Your task to perform on an android device: What's the weather going to be tomorrow? Image 0: 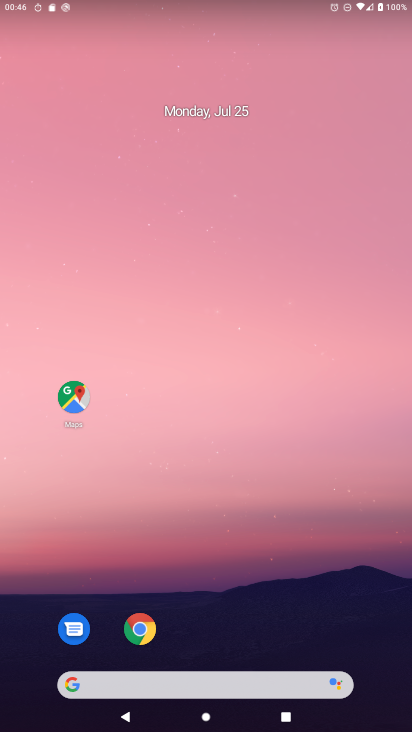
Step 0: drag from (187, 530) to (215, 94)
Your task to perform on an android device: What's the weather going to be tomorrow? Image 1: 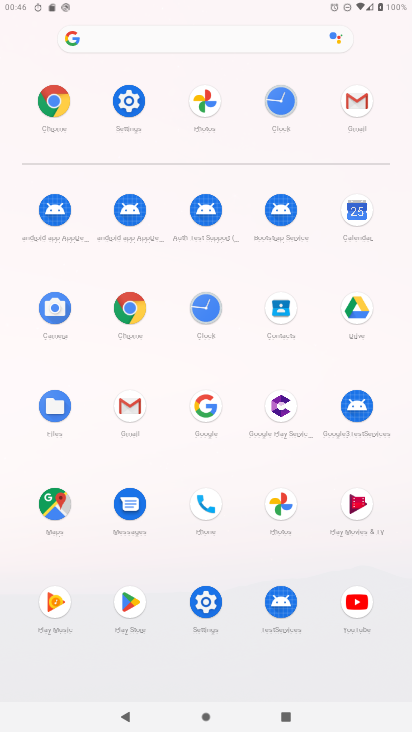
Step 1: click (126, 39)
Your task to perform on an android device: What's the weather going to be tomorrow? Image 2: 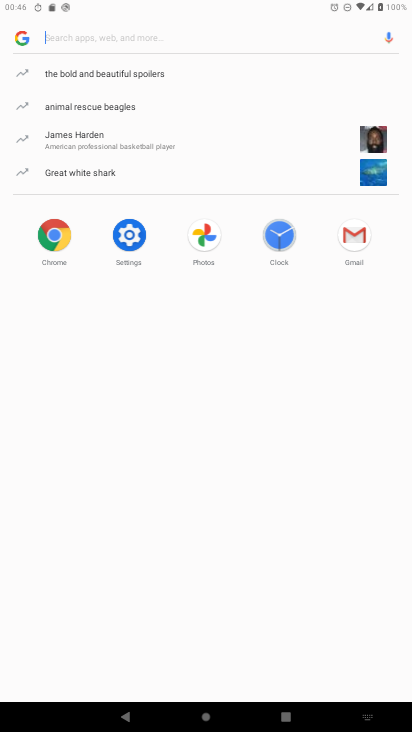
Step 2: type "What's the weather going to be tomorrow?"
Your task to perform on an android device: What's the weather going to be tomorrow? Image 3: 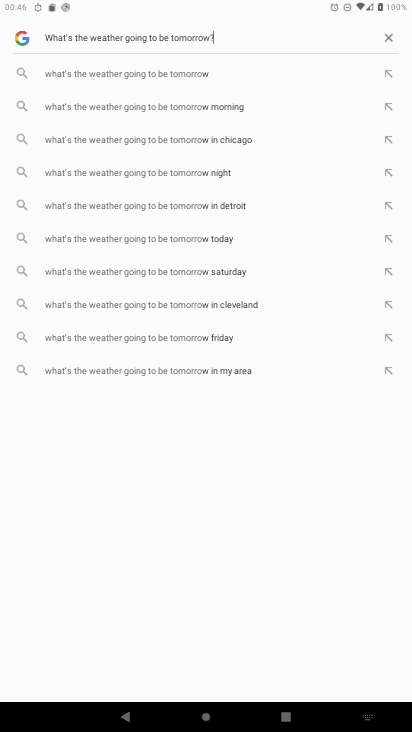
Step 3: type ""
Your task to perform on an android device: What's the weather going to be tomorrow? Image 4: 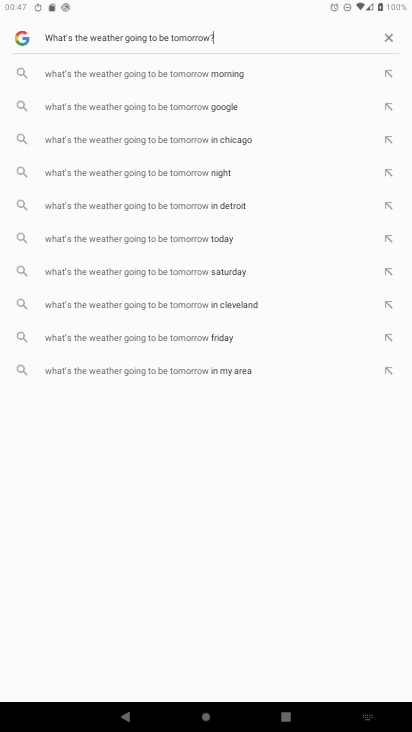
Step 4: click (194, 265)
Your task to perform on an android device: What's the weather going to be tomorrow? Image 5: 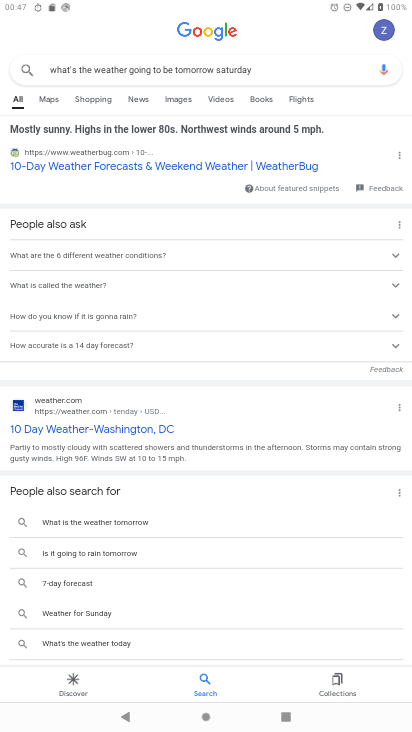
Step 5: task complete